Your task to perform on an android device: turn off translation in the chrome app Image 0: 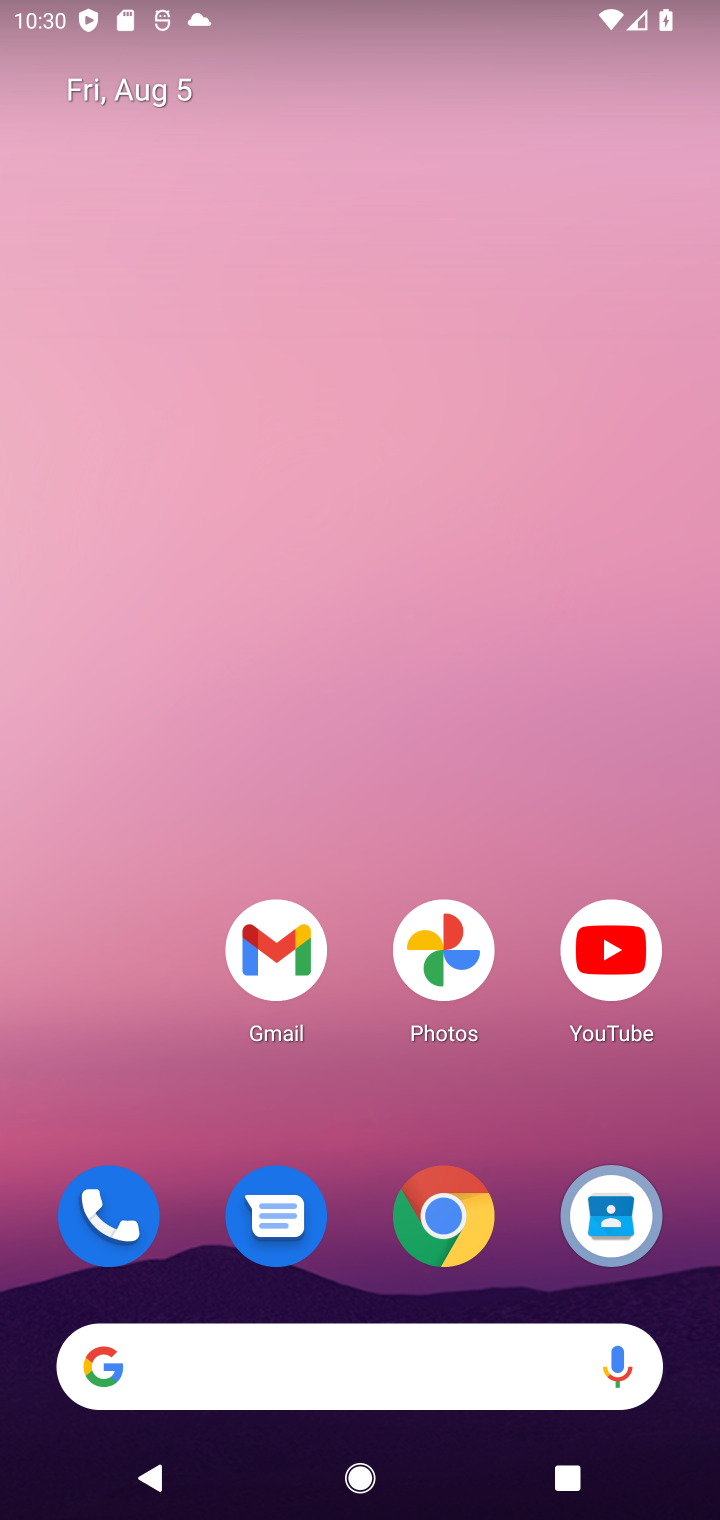
Step 0: drag from (443, 1345) to (446, 22)
Your task to perform on an android device: turn off translation in the chrome app Image 1: 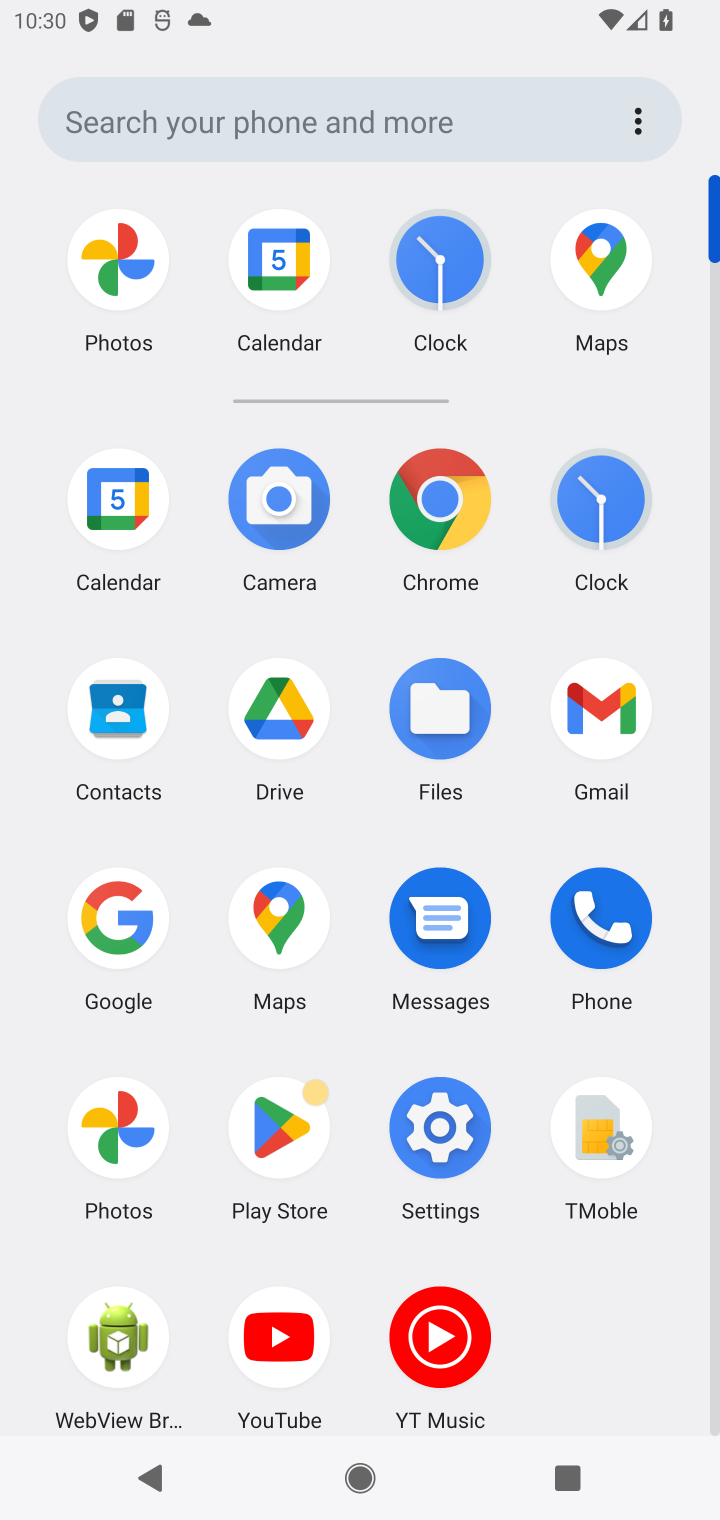
Step 1: click (446, 463)
Your task to perform on an android device: turn off translation in the chrome app Image 2: 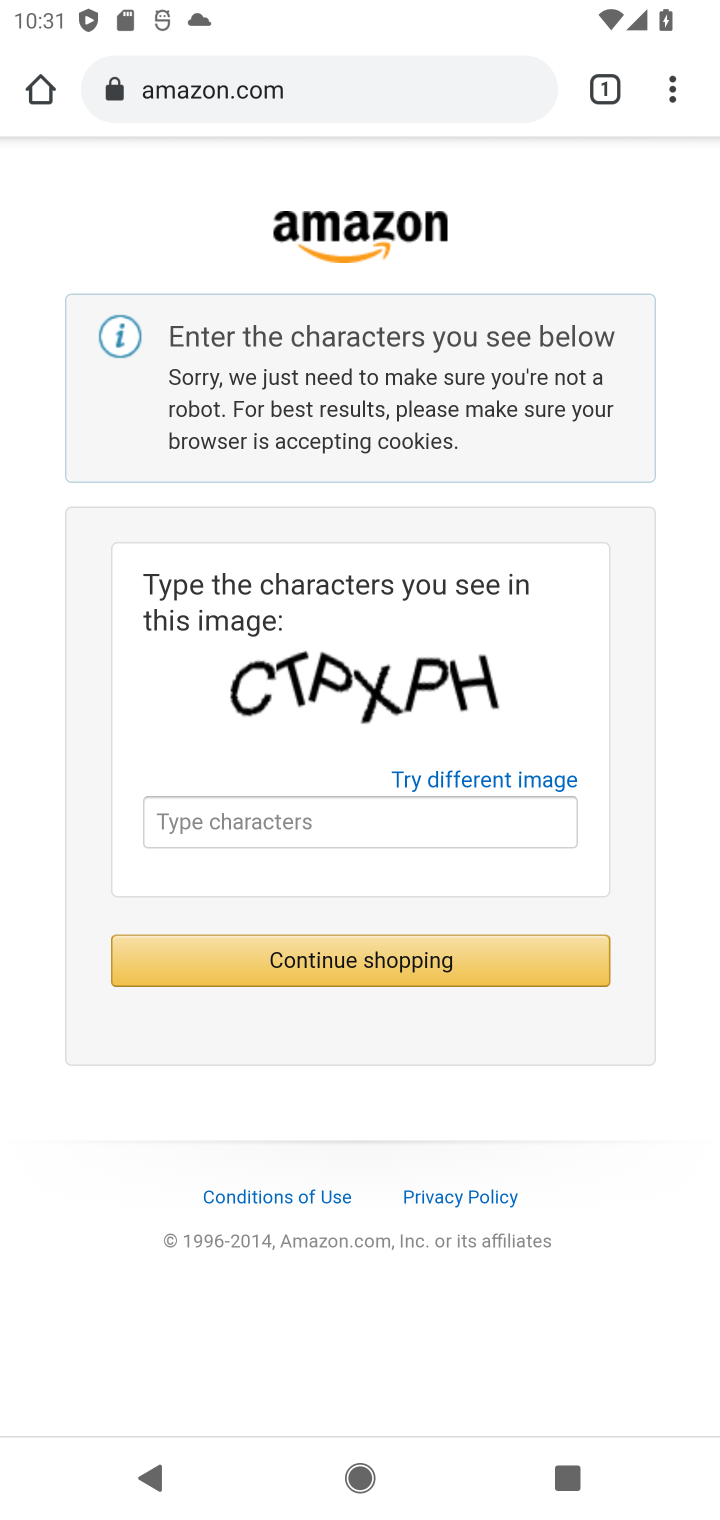
Step 2: press home button
Your task to perform on an android device: turn off translation in the chrome app Image 3: 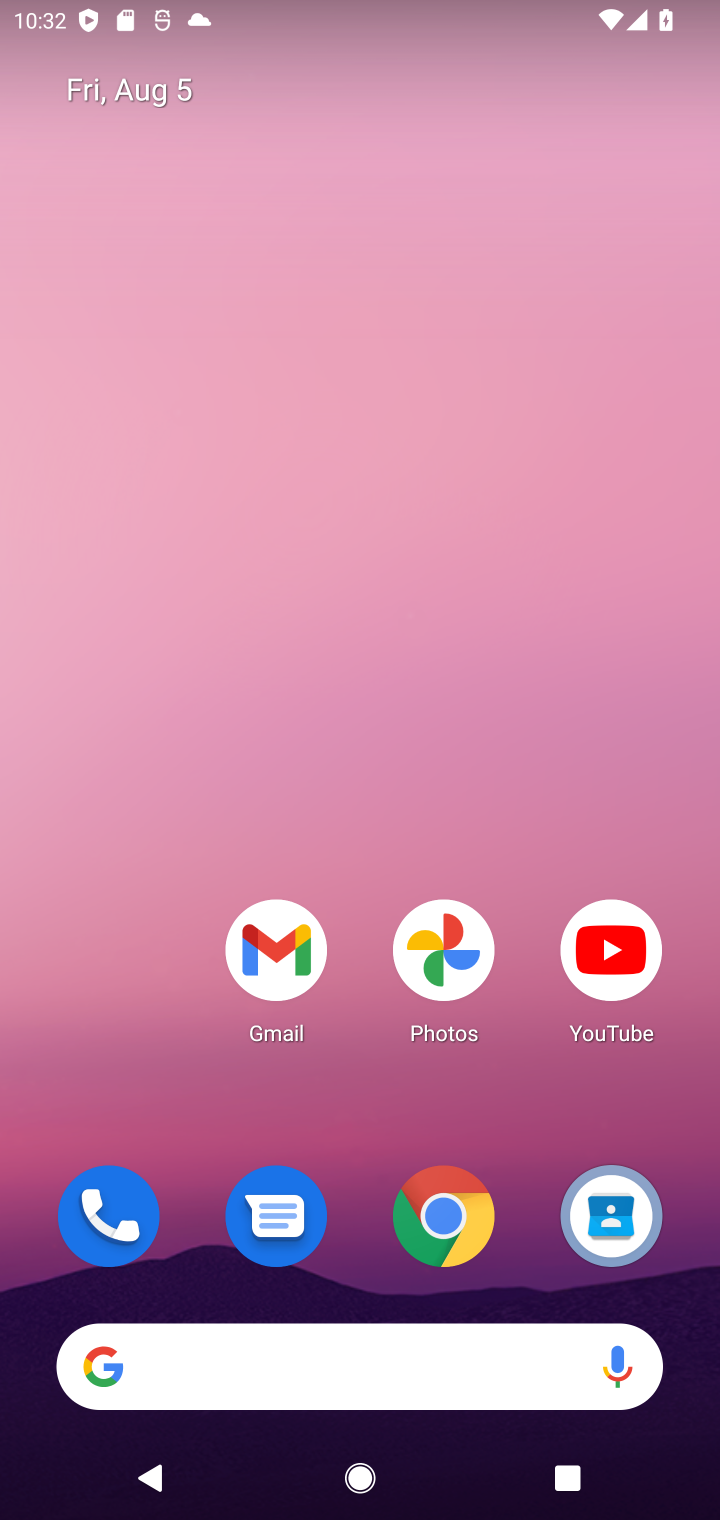
Step 3: drag from (291, 1378) to (207, 497)
Your task to perform on an android device: turn off translation in the chrome app Image 4: 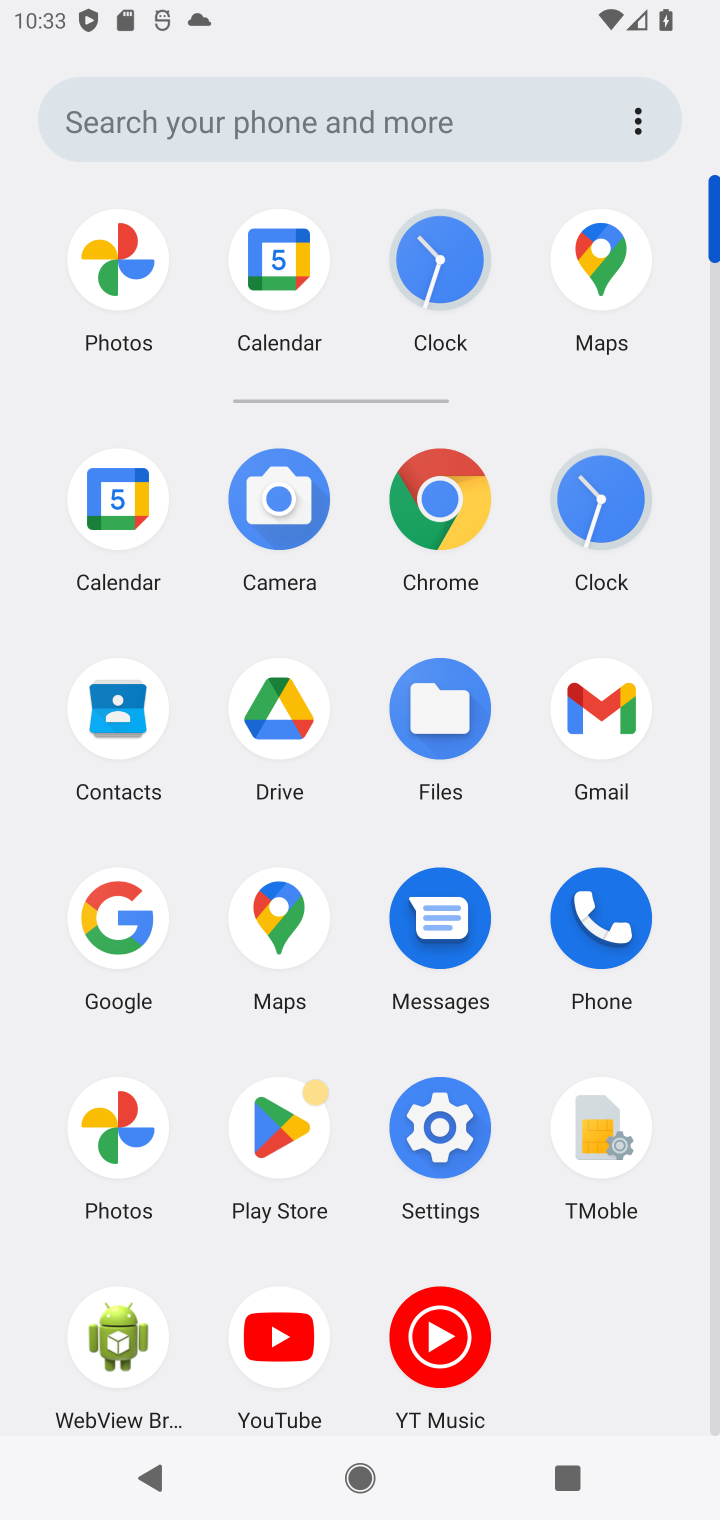
Step 4: click (392, 478)
Your task to perform on an android device: turn off translation in the chrome app Image 5: 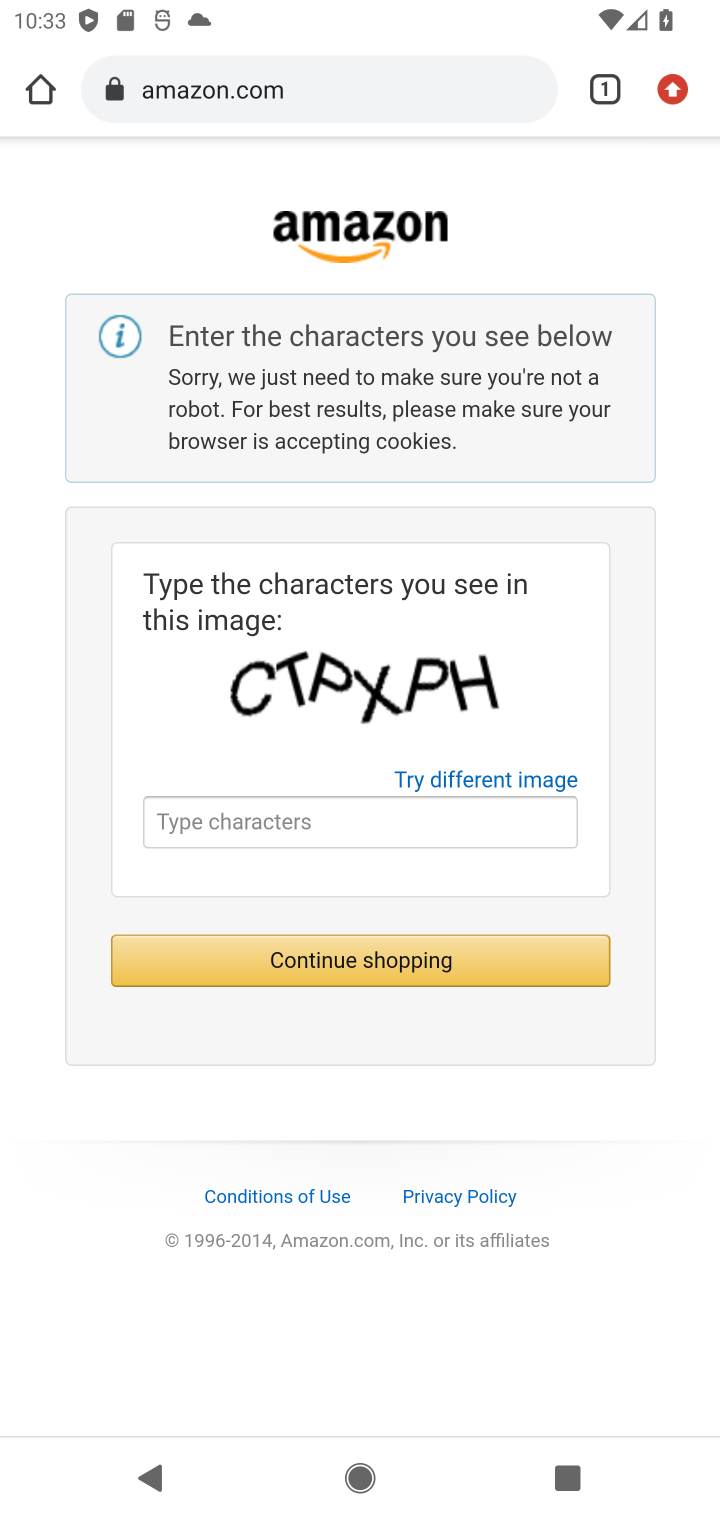
Step 5: click (676, 82)
Your task to perform on an android device: turn off translation in the chrome app Image 6: 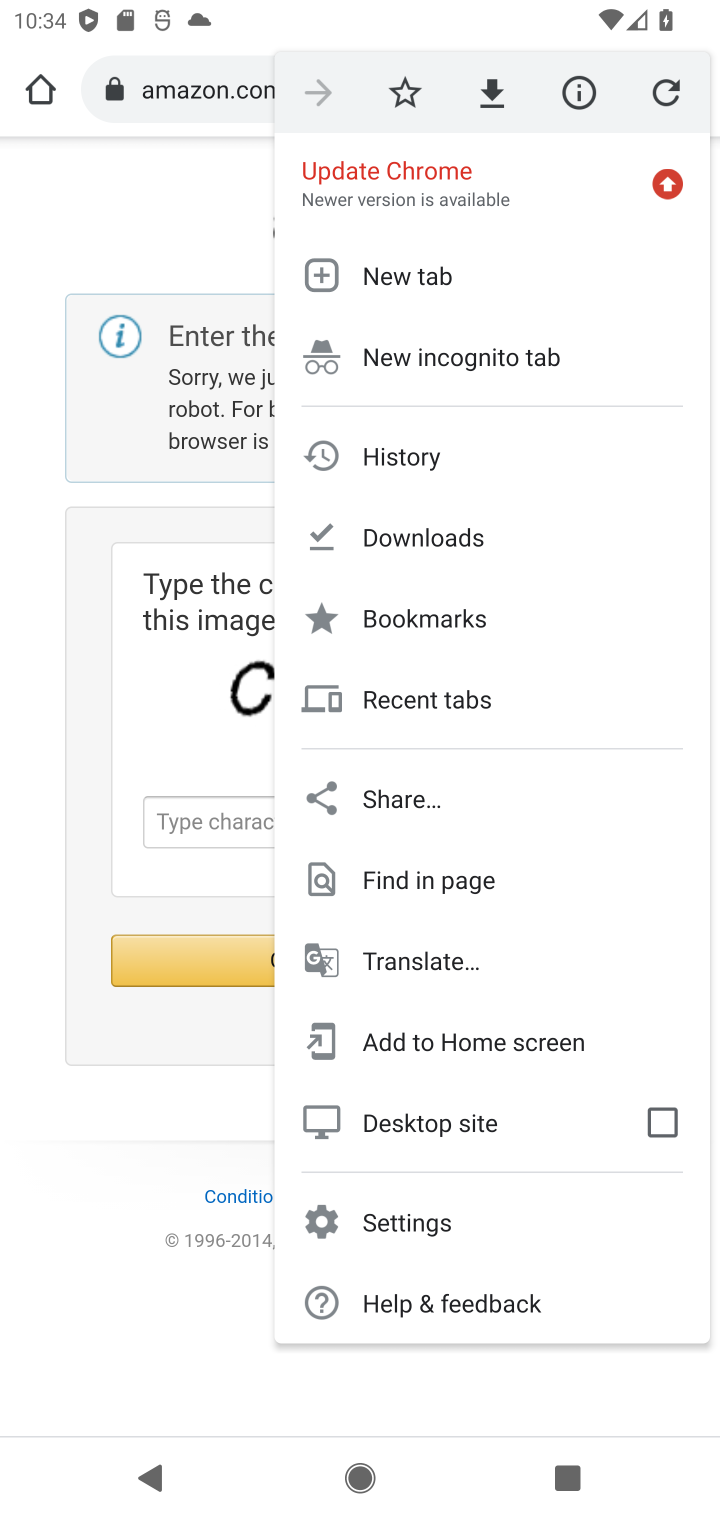
Step 6: click (378, 1206)
Your task to perform on an android device: turn off translation in the chrome app Image 7: 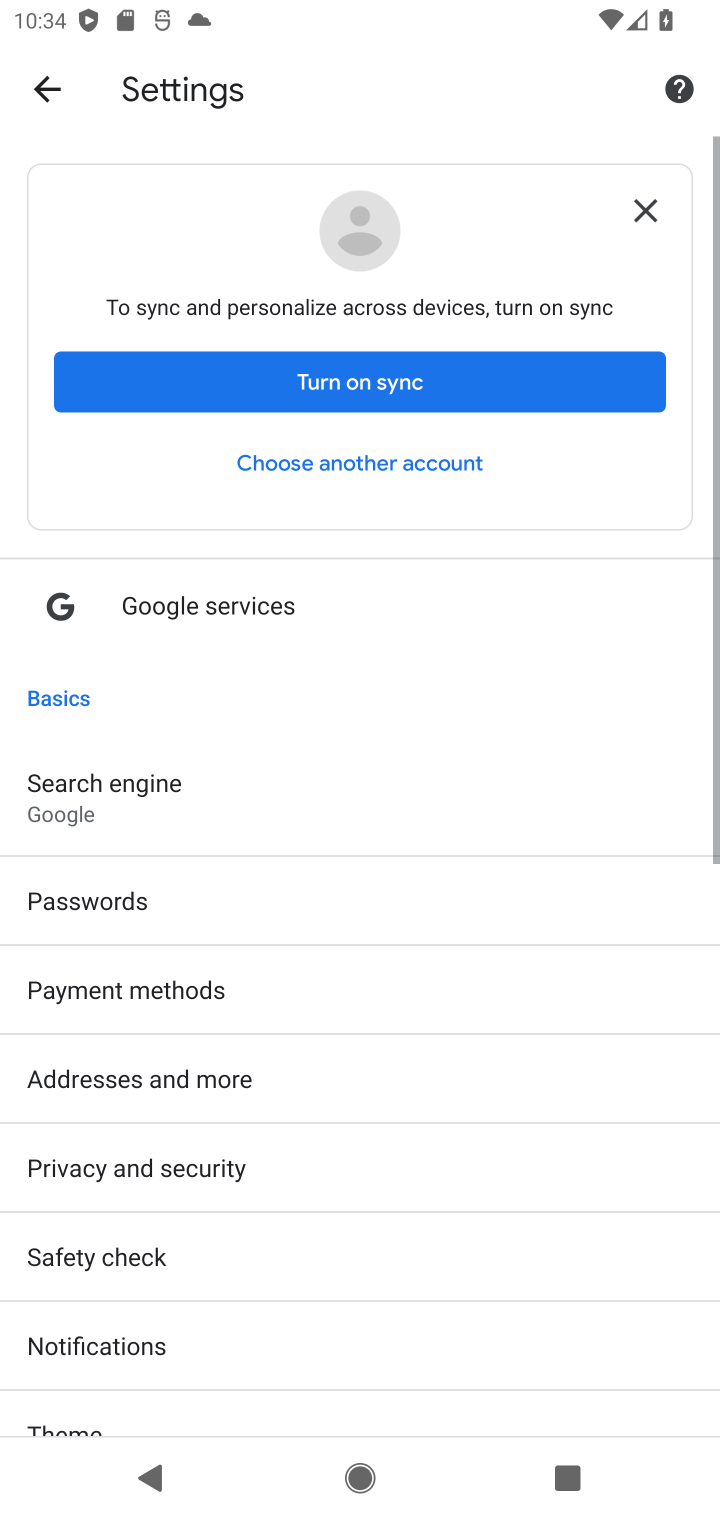
Step 7: drag from (370, 1352) to (418, 332)
Your task to perform on an android device: turn off translation in the chrome app Image 8: 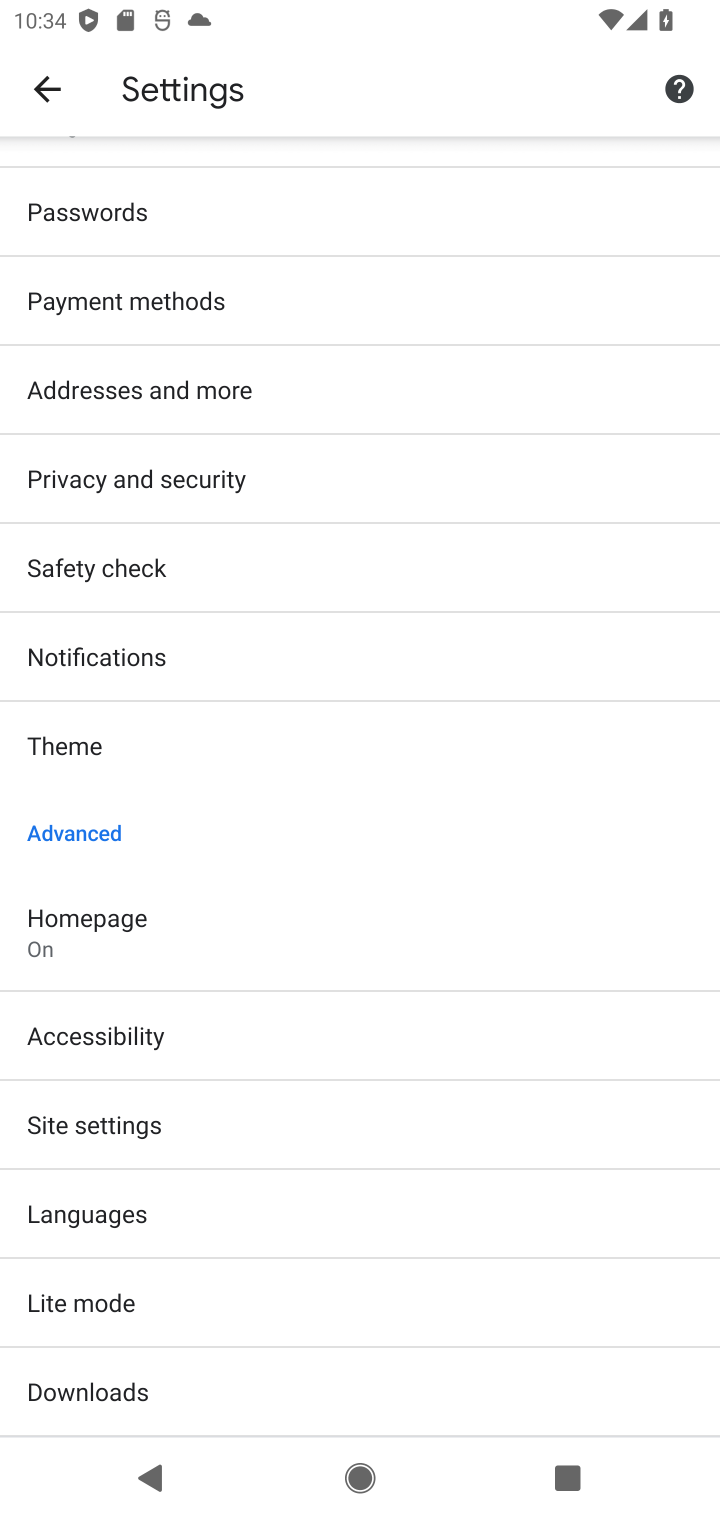
Step 8: click (95, 1202)
Your task to perform on an android device: turn off translation in the chrome app Image 9: 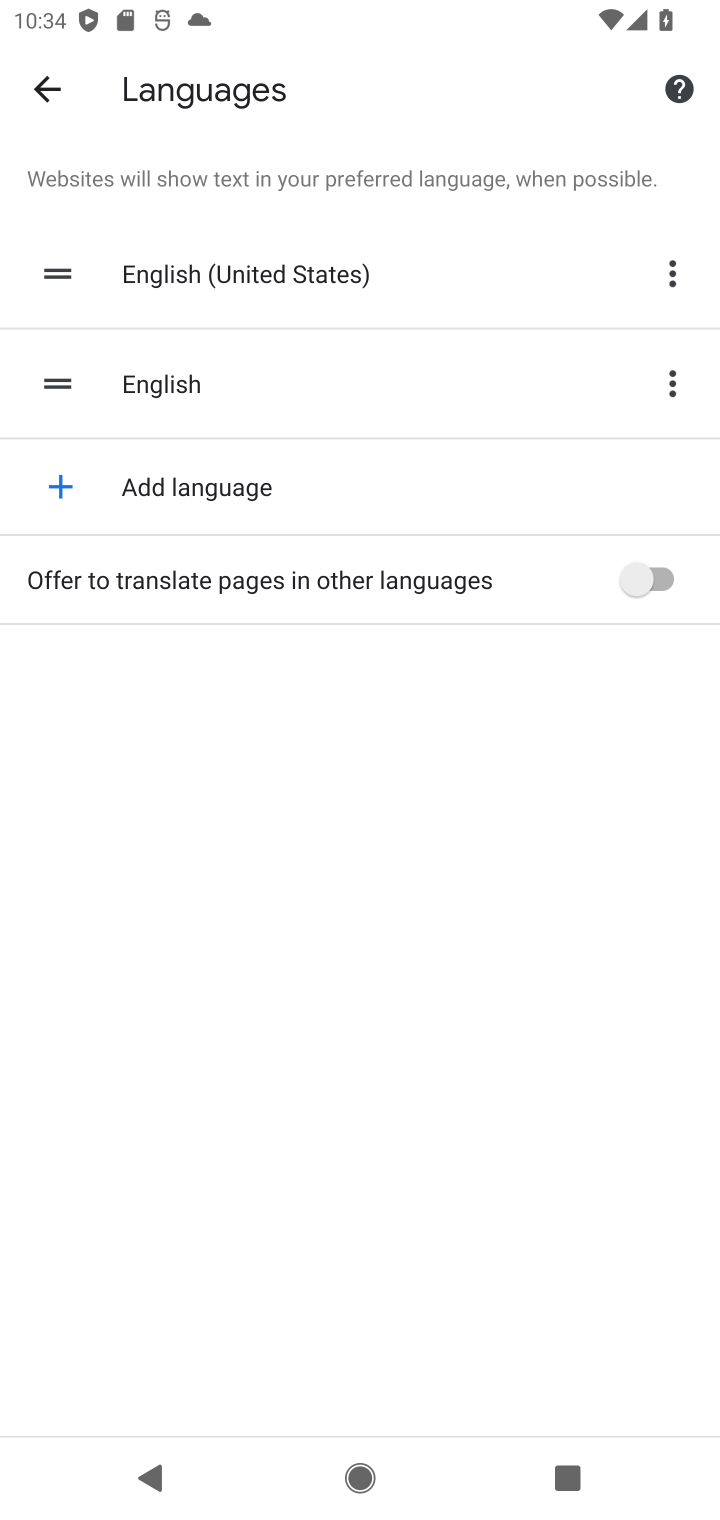
Step 9: task complete